Your task to perform on an android device: Checkthe settings for the Amazon Prime Music app Image 0: 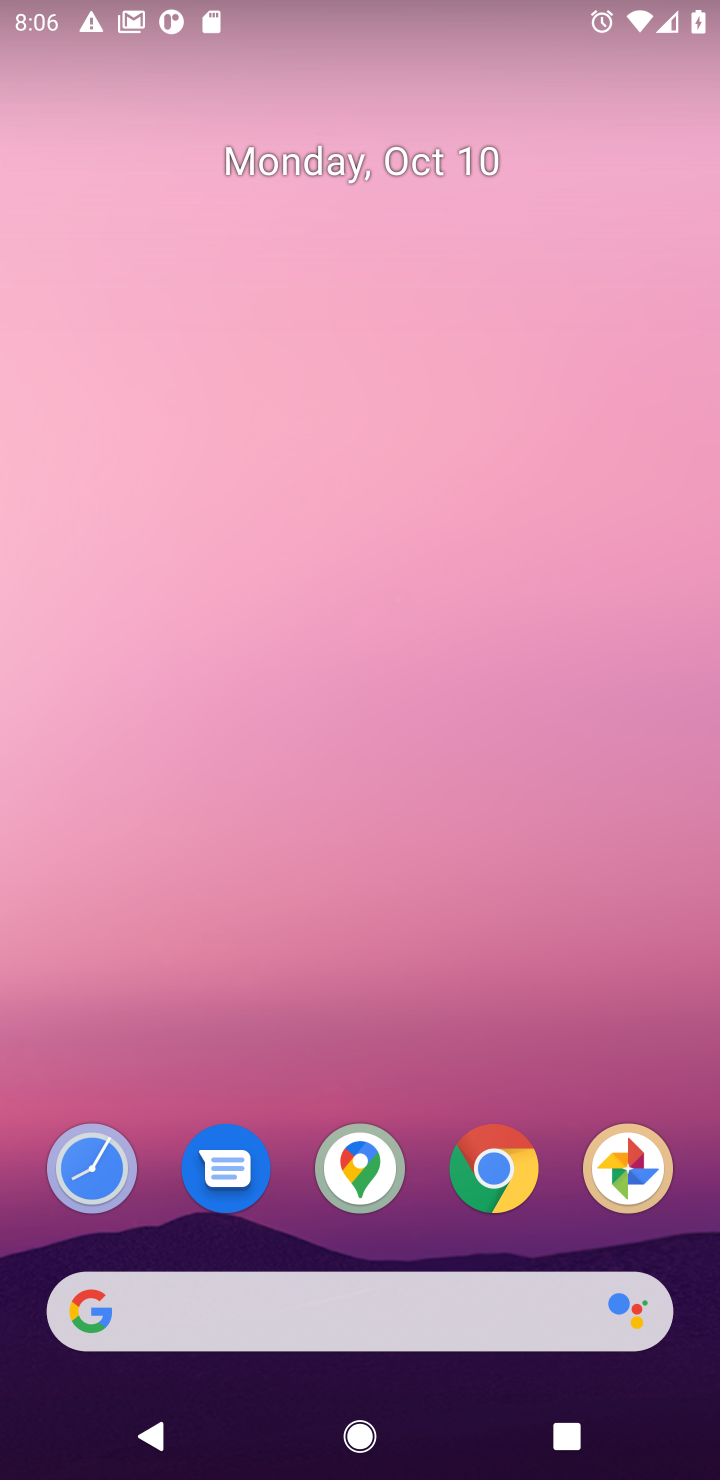
Step 0: drag from (403, 1121) to (428, 48)
Your task to perform on an android device: Checkthe settings for the Amazon Prime Music app Image 1: 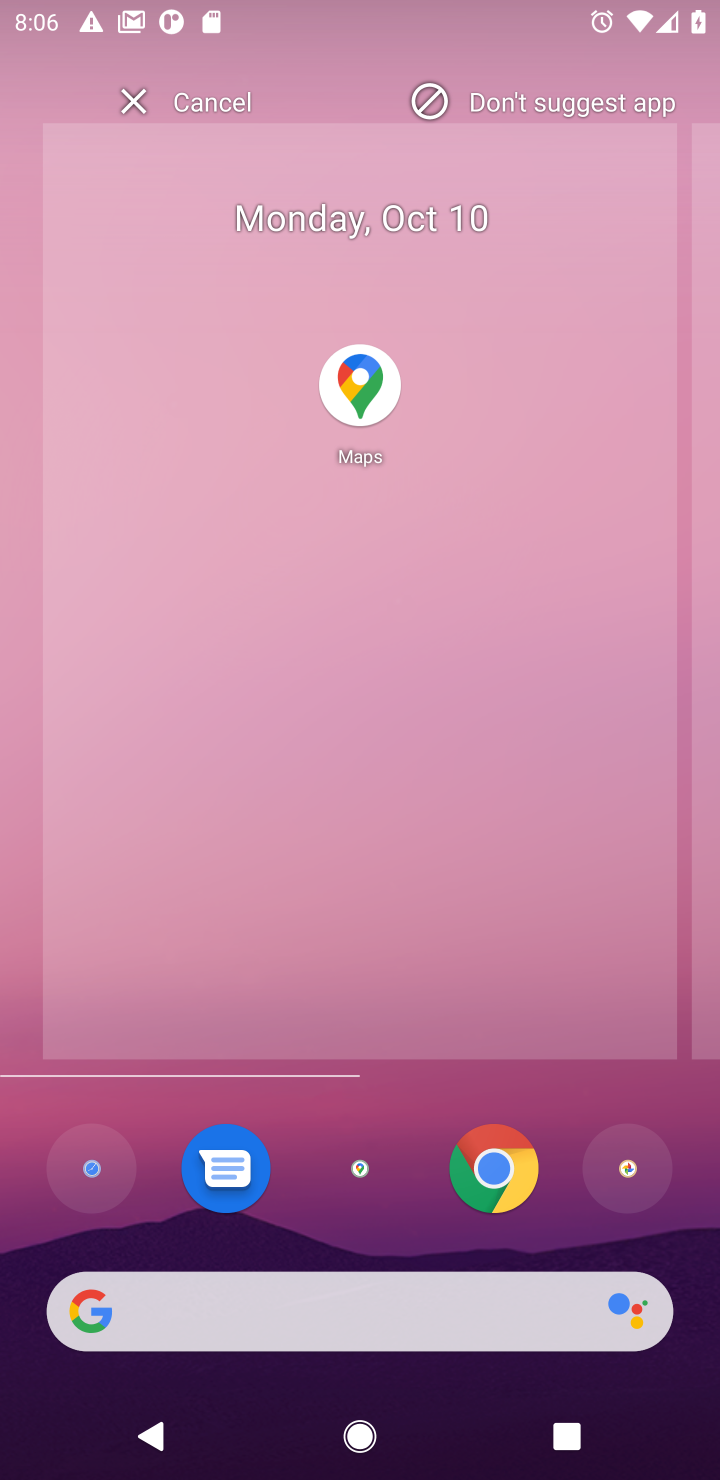
Step 1: task complete